Your task to perform on an android device: refresh tabs in the chrome app Image 0: 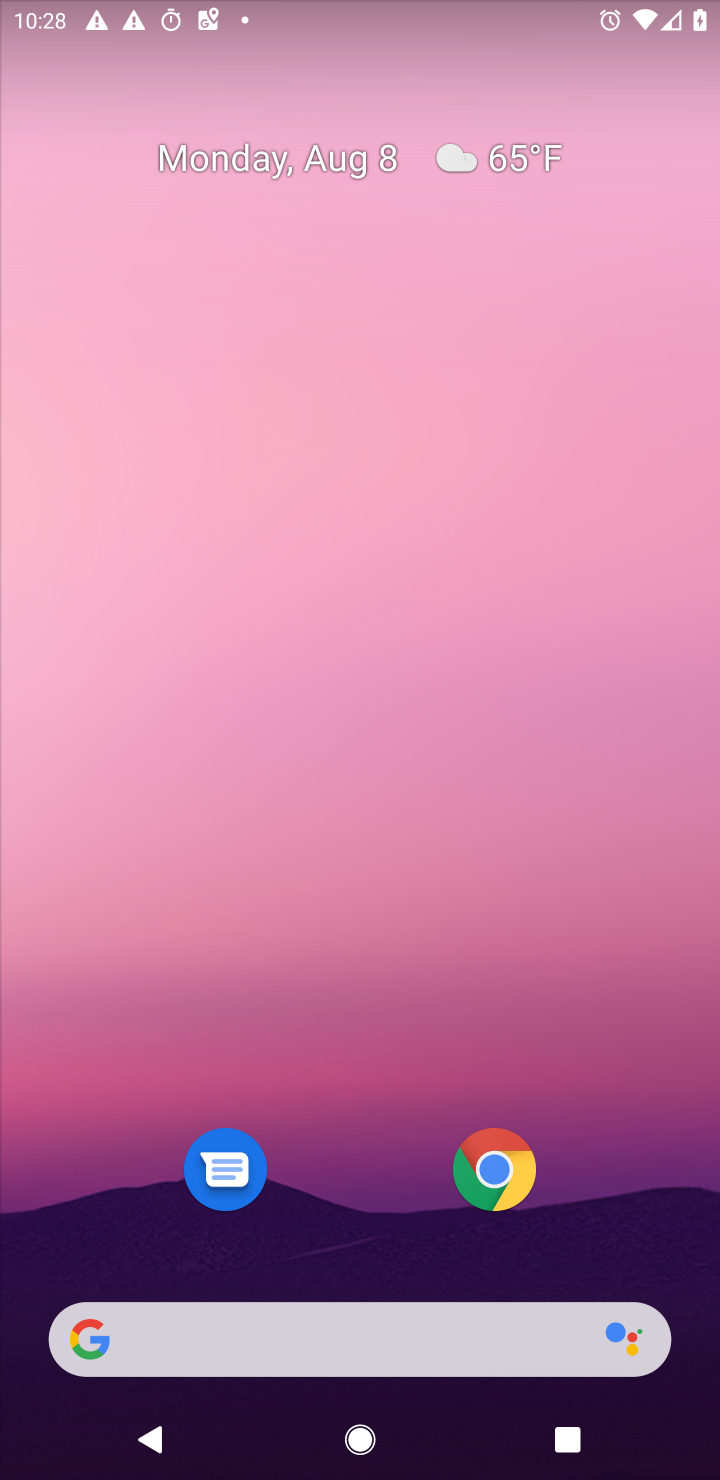
Step 0: click (508, 1180)
Your task to perform on an android device: refresh tabs in the chrome app Image 1: 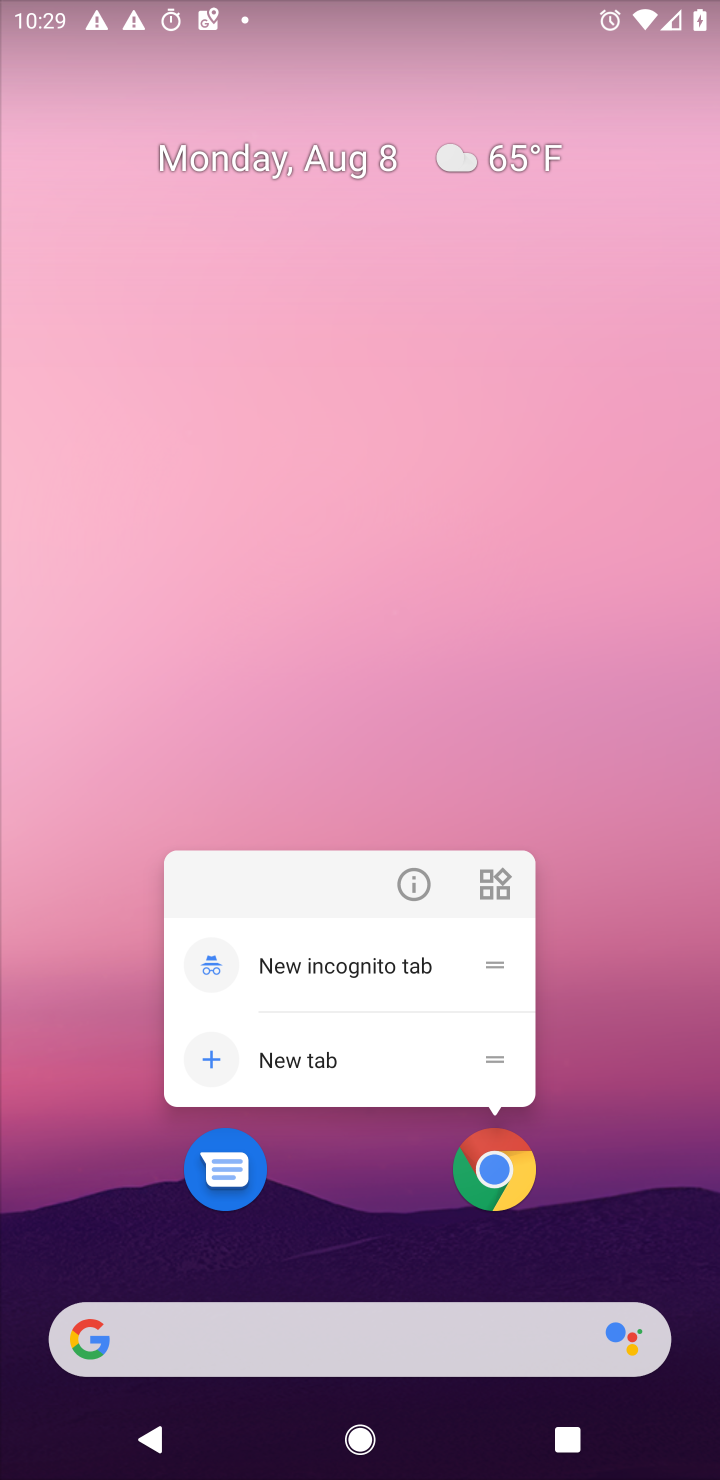
Step 1: click (491, 1170)
Your task to perform on an android device: refresh tabs in the chrome app Image 2: 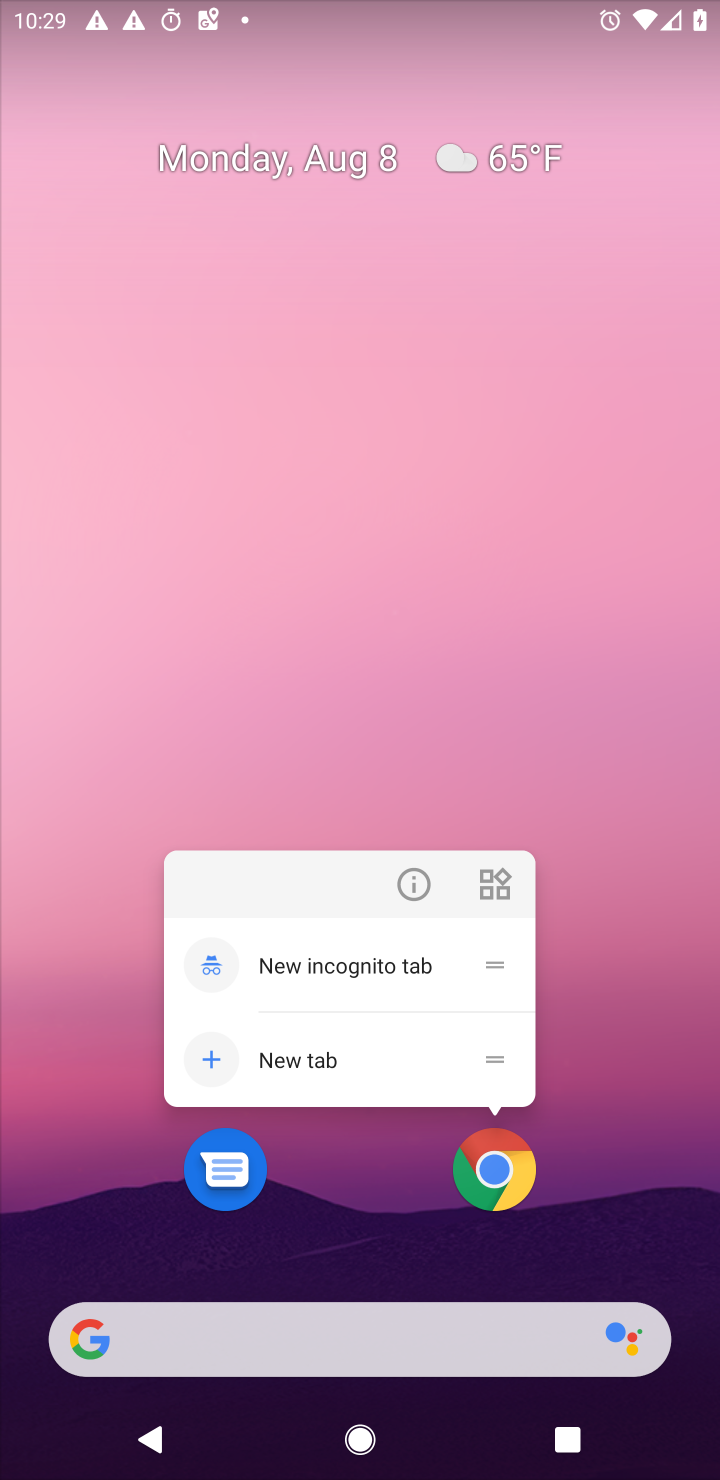
Step 2: click (509, 1160)
Your task to perform on an android device: refresh tabs in the chrome app Image 3: 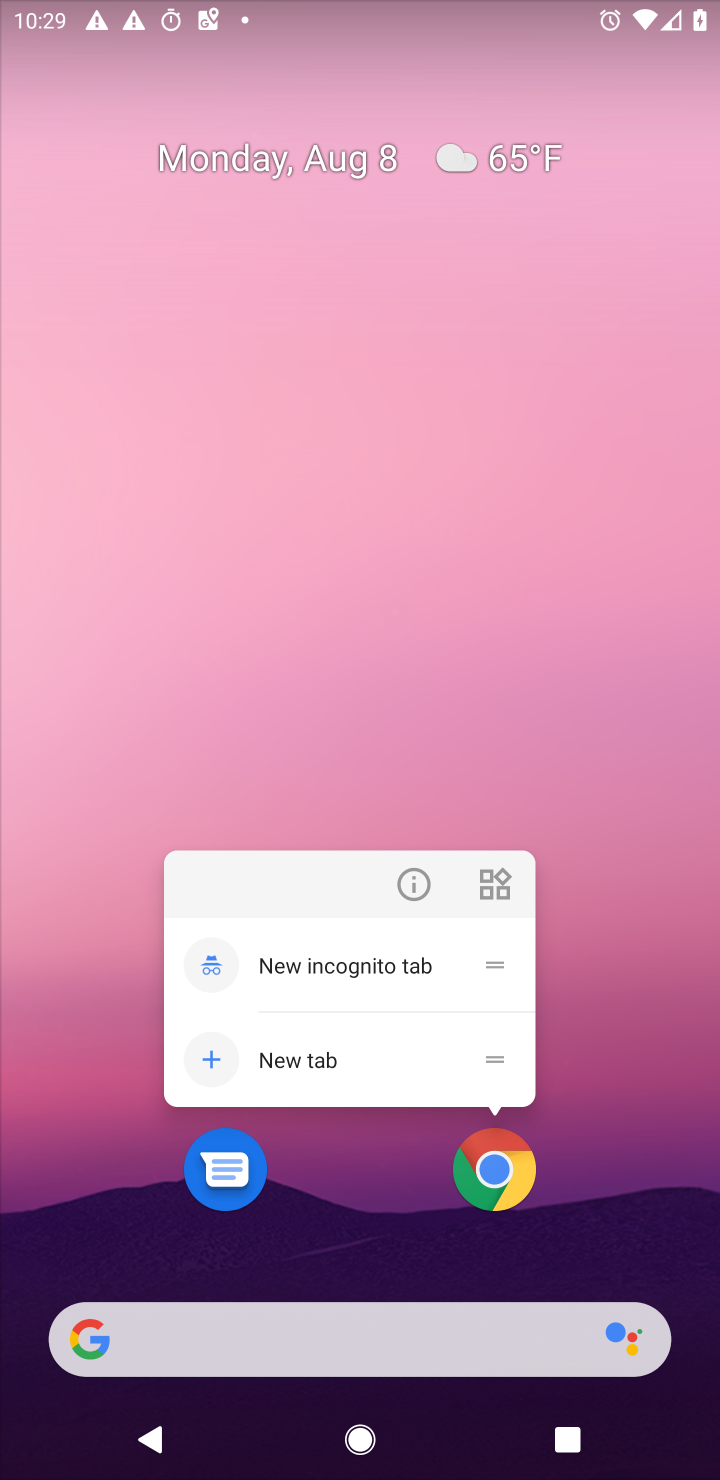
Step 3: click (504, 1175)
Your task to perform on an android device: refresh tabs in the chrome app Image 4: 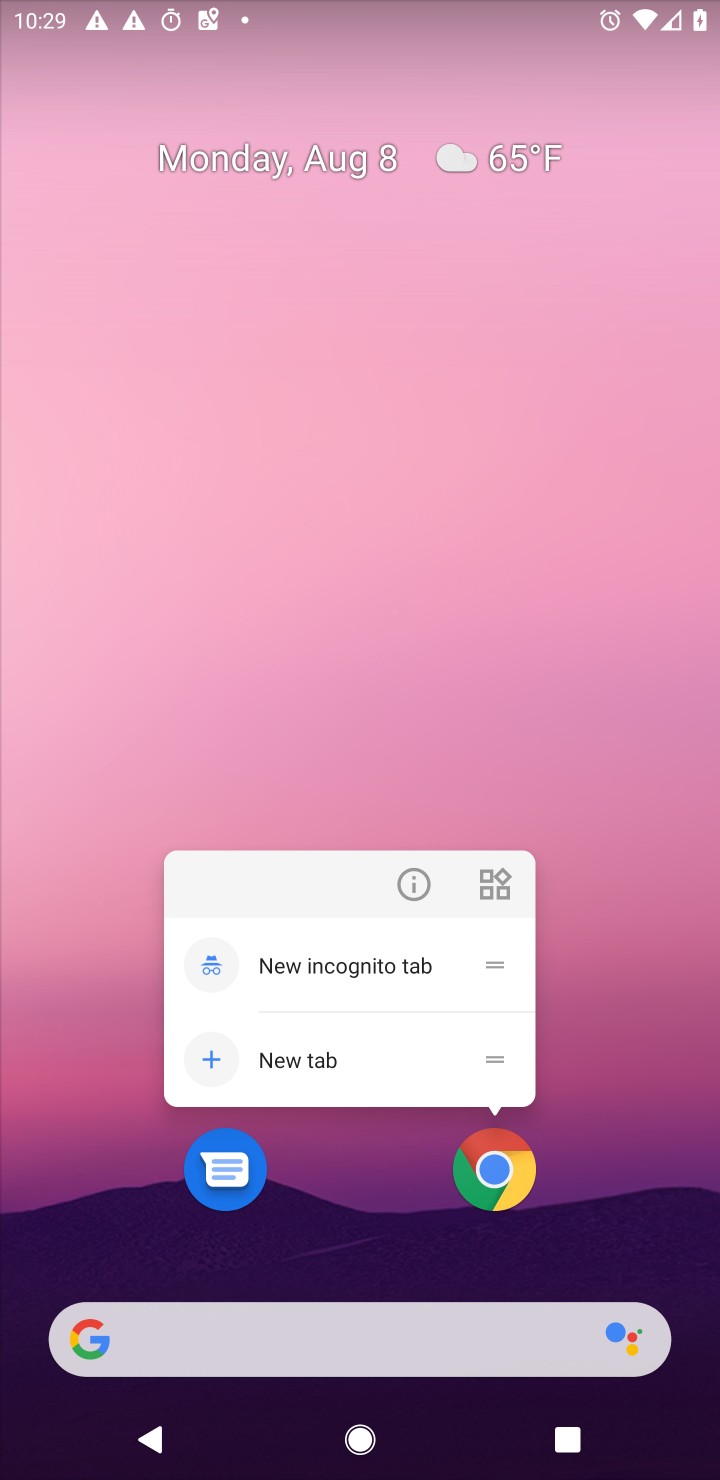
Step 4: click (490, 1115)
Your task to perform on an android device: refresh tabs in the chrome app Image 5: 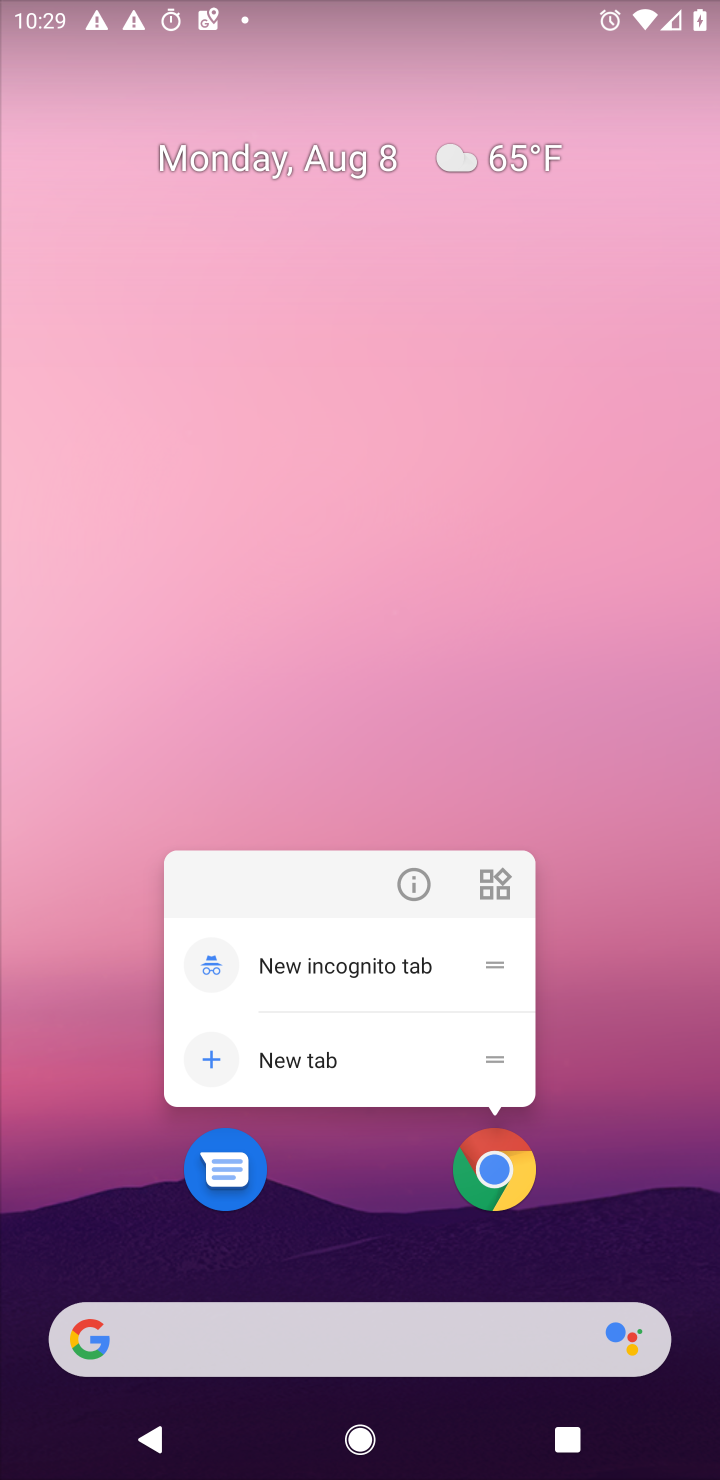
Step 5: click (497, 1201)
Your task to perform on an android device: refresh tabs in the chrome app Image 6: 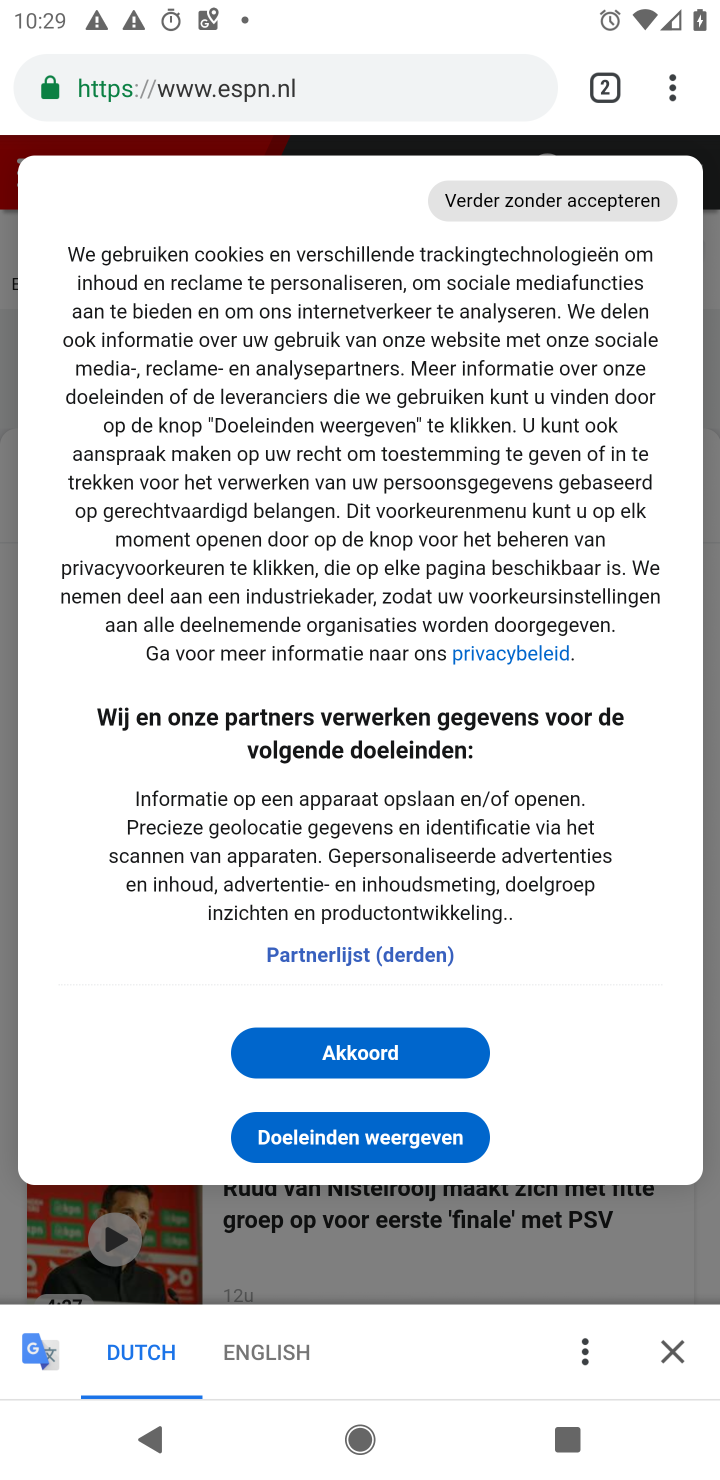
Step 6: click (680, 65)
Your task to perform on an android device: refresh tabs in the chrome app Image 7: 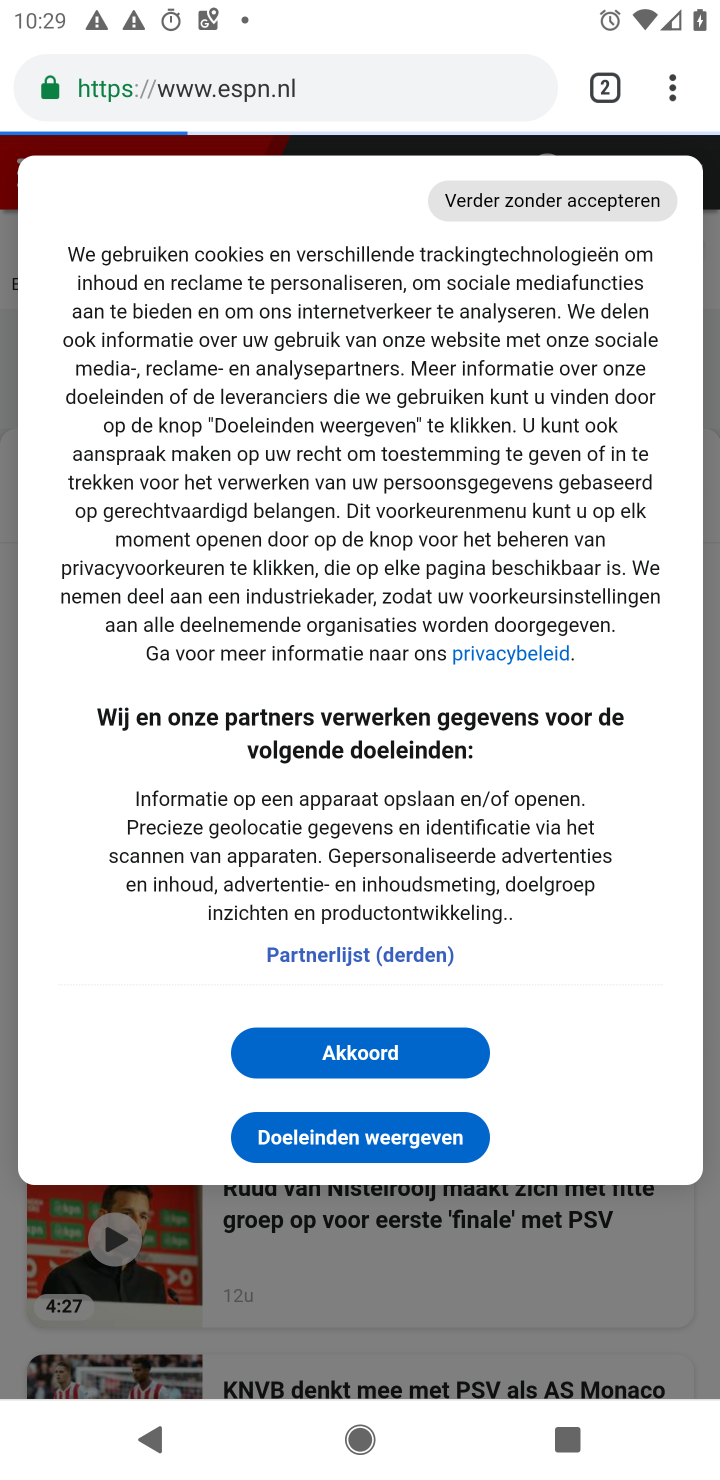
Step 7: task complete